Your task to perform on an android device: Clear the cart on bestbuy.com. Add "amazon basics triple a" to the cart on bestbuy.com, then select checkout. Image 0: 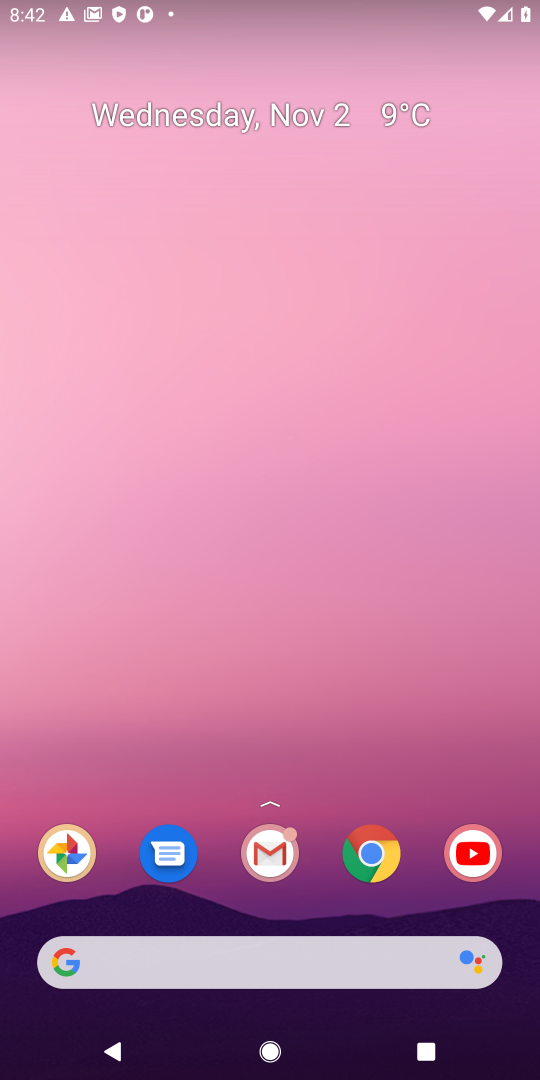
Step 0: click (367, 849)
Your task to perform on an android device: Clear the cart on bestbuy.com. Add "amazon basics triple a" to the cart on bestbuy.com, then select checkout. Image 1: 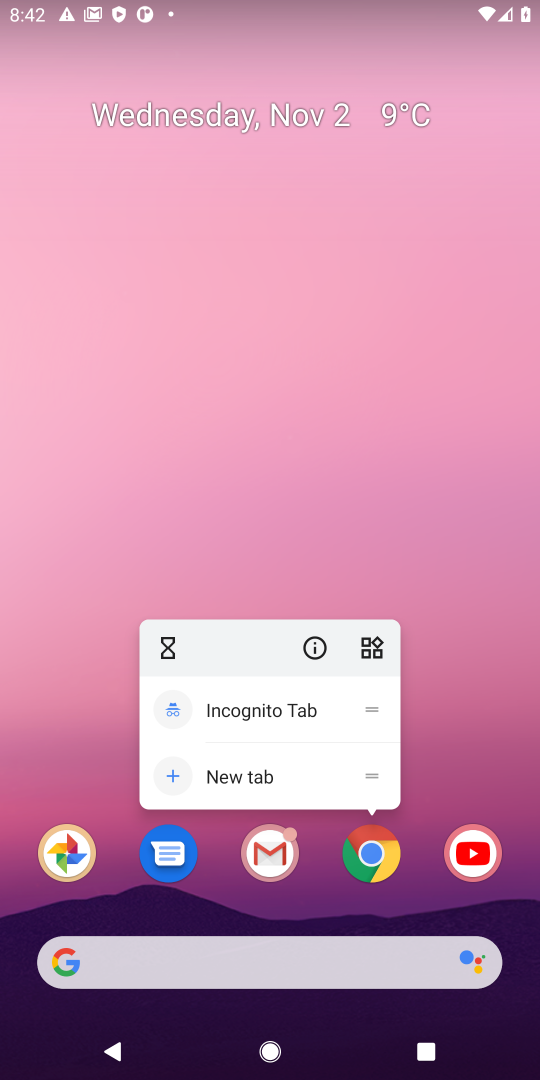
Step 1: click (367, 852)
Your task to perform on an android device: Clear the cart on bestbuy.com. Add "amazon basics triple a" to the cart on bestbuy.com, then select checkout. Image 2: 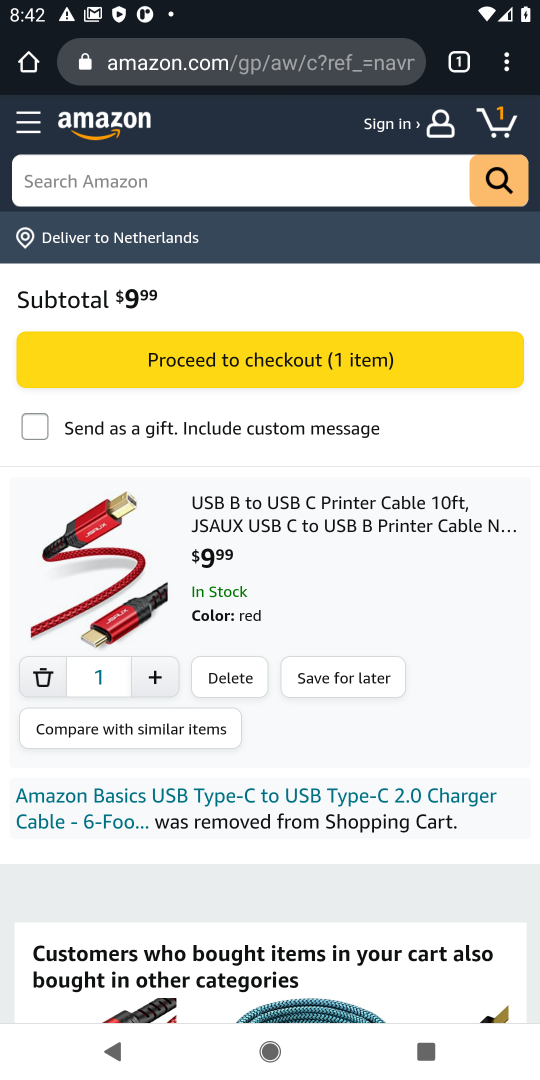
Step 2: click (300, 58)
Your task to perform on an android device: Clear the cart on bestbuy.com. Add "amazon basics triple a" to the cart on bestbuy.com, then select checkout. Image 3: 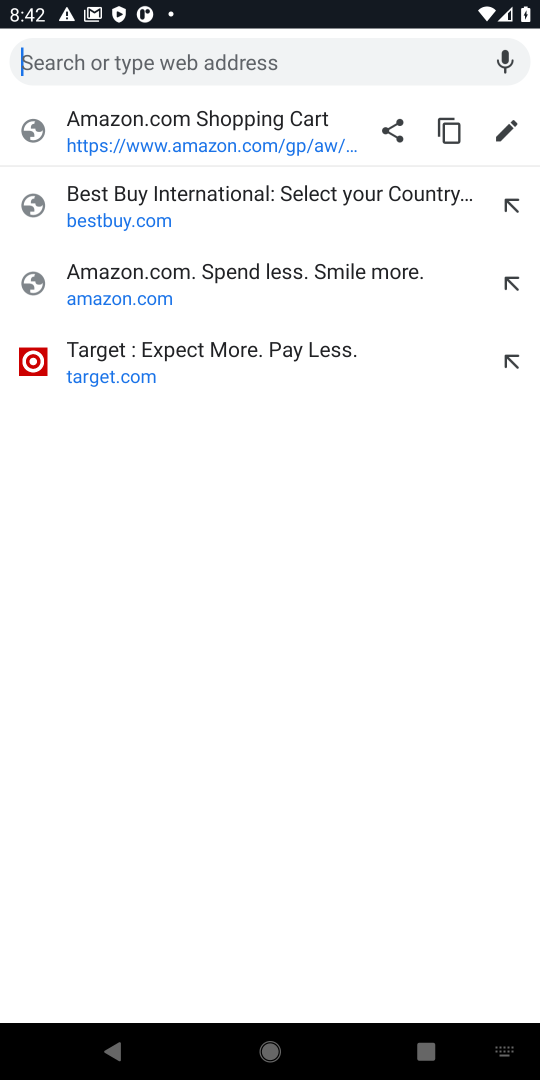
Step 3: click (84, 219)
Your task to perform on an android device: Clear the cart on bestbuy.com. Add "amazon basics triple a" to the cart on bestbuy.com, then select checkout. Image 4: 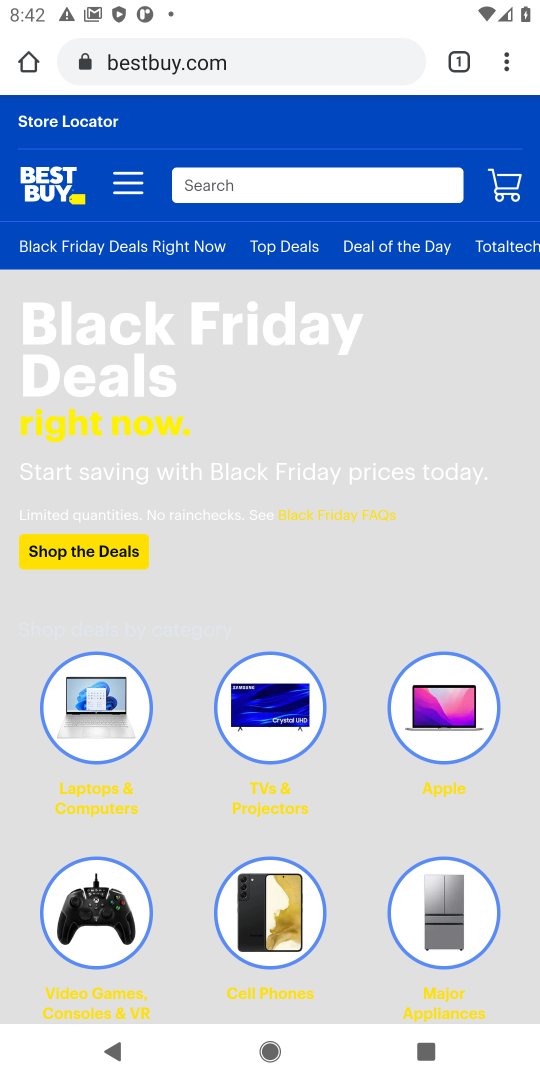
Step 4: click (282, 184)
Your task to perform on an android device: Clear the cart on bestbuy.com. Add "amazon basics triple a" to the cart on bestbuy.com, then select checkout. Image 5: 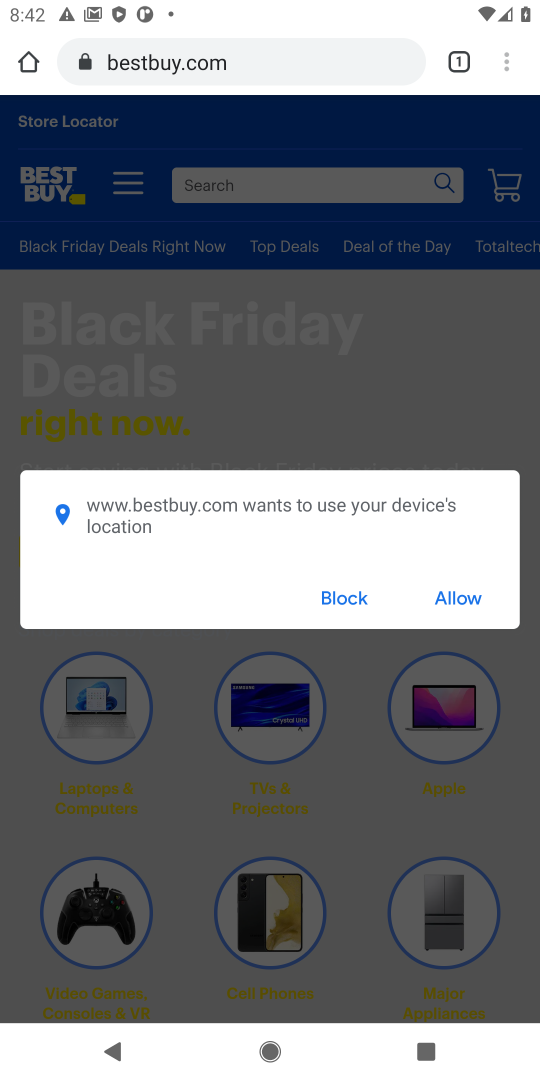
Step 5: click (353, 592)
Your task to perform on an android device: Clear the cart on bestbuy.com. Add "amazon basics triple a" to the cart on bestbuy.com, then select checkout. Image 6: 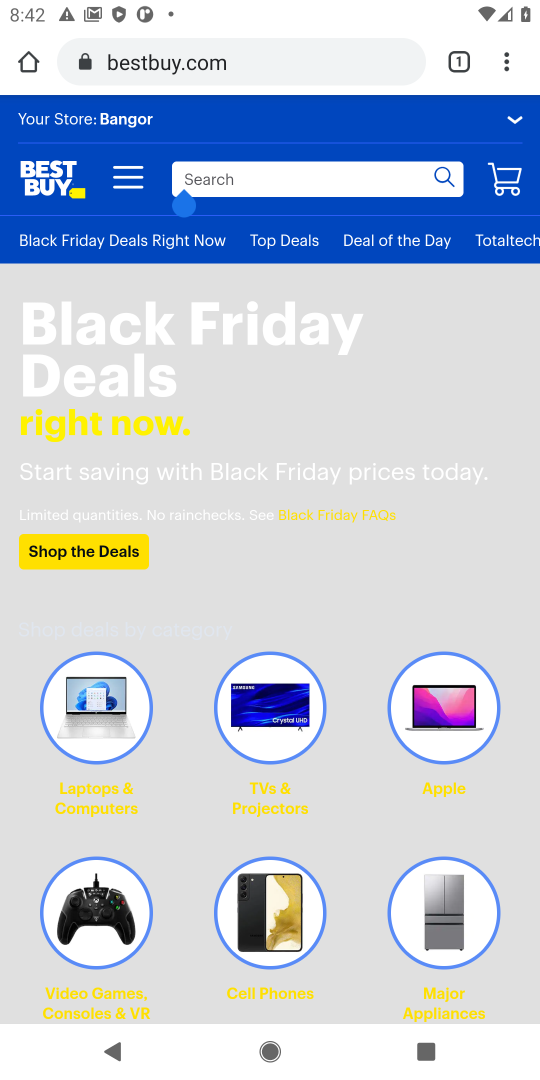
Step 6: click (297, 184)
Your task to perform on an android device: Clear the cart on bestbuy.com. Add "amazon basics triple a" to the cart on bestbuy.com, then select checkout. Image 7: 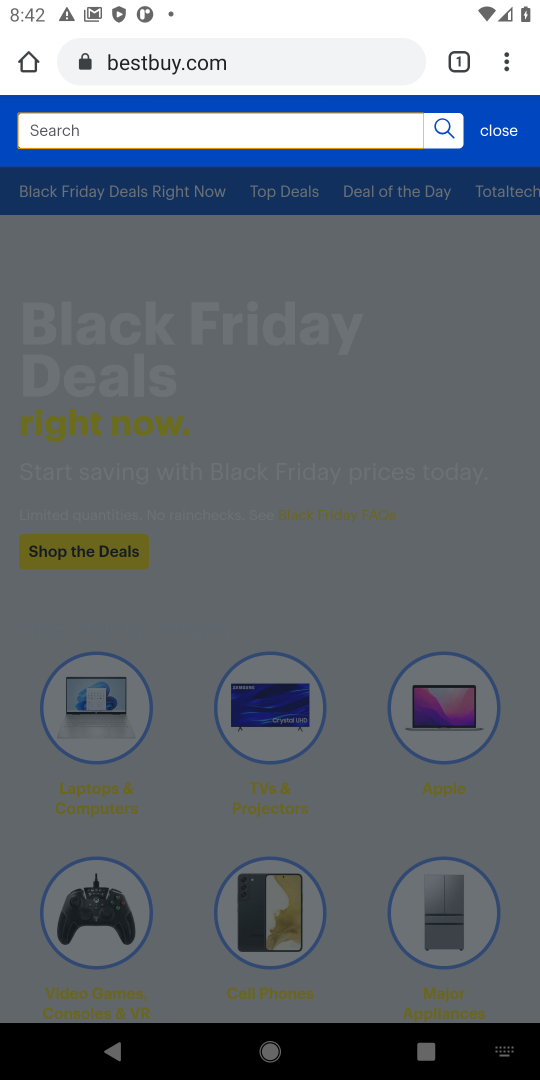
Step 7: type "amazon basics triple a"
Your task to perform on an android device: Clear the cart on bestbuy.com. Add "amazon basics triple a" to the cart on bestbuy.com, then select checkout. Image 8: 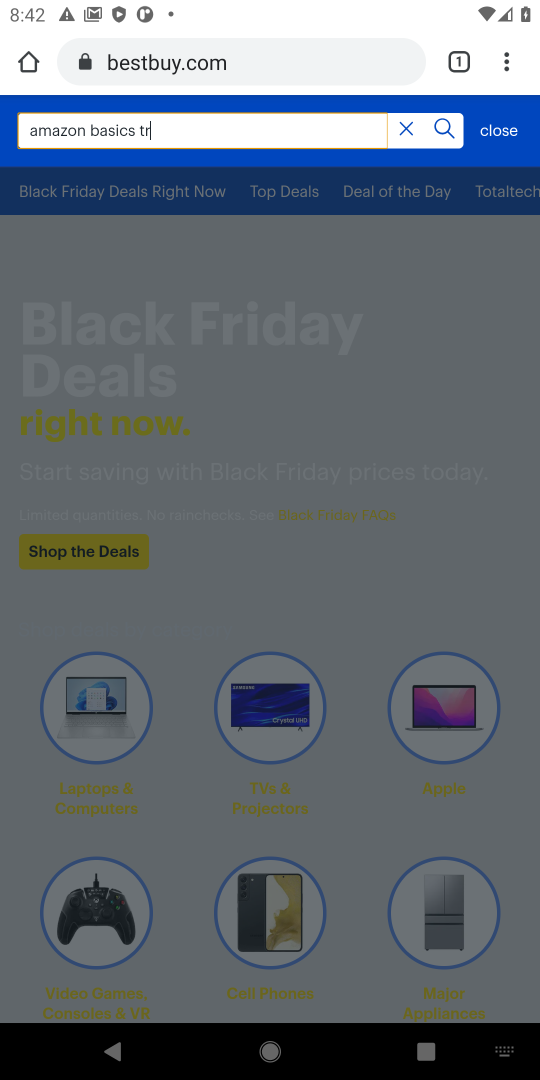
Step 8: press enter
Your task to perform on an android device: Clear the cart on bestbuy.com. Add "amazon basics triple a" to the cart on bestbuy.com, then select checkout. Image 9: 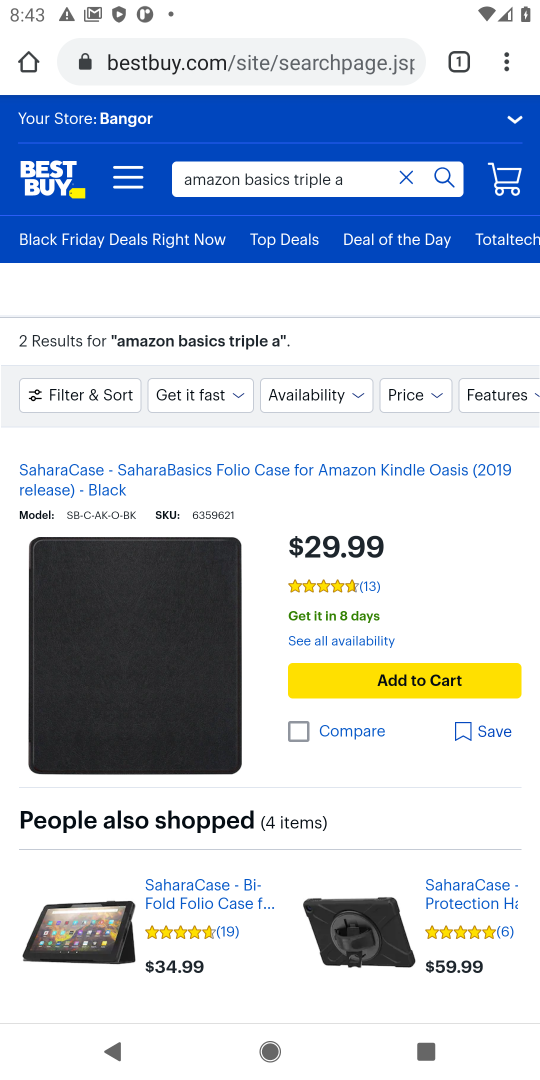
Step 9: task complete